Your task to perform on an android device: What is the news today? Image 0: 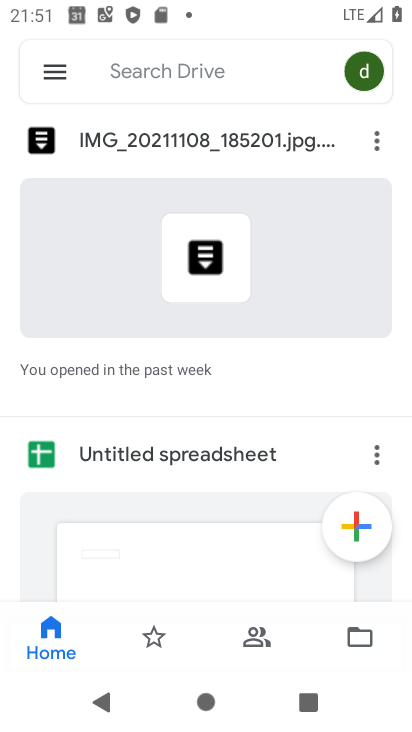
Step 0: press home button
Your task to perform on an android device: What is the news today? Image 1: 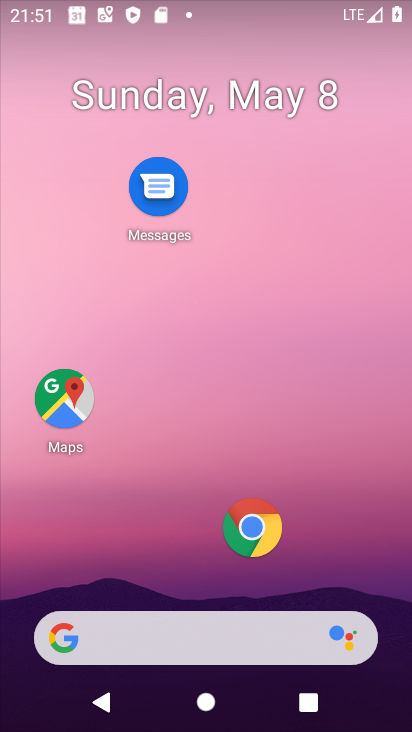
Step 1: drag from (183, 549) to (214, 55)
Your task to perform on an android device: What is the news today? Image 2: 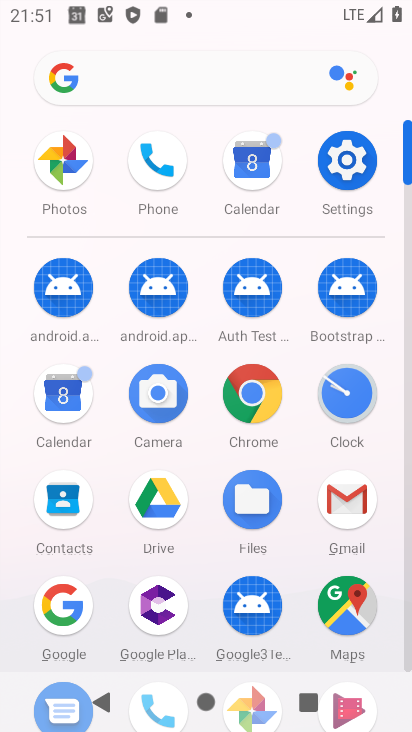
Step 2: drag from (211, 546) to (227, 161)
Your task to perform on an android device: What is the news today? Image 3: 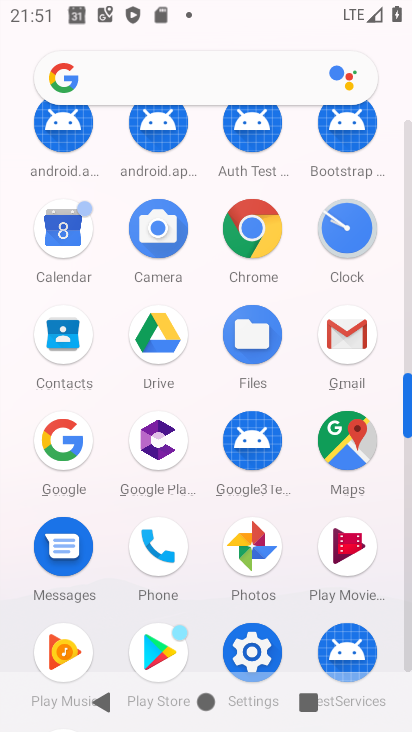
Step 3: click (62, 445)
Your task to perform on an android device: What is the news today? Image 4: 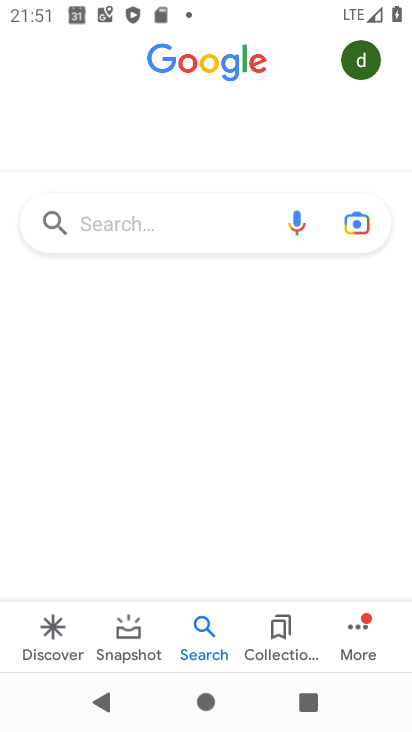
Step 4: click (169, 228)
Your task to perform on an android device: What is the news today? Image 5: 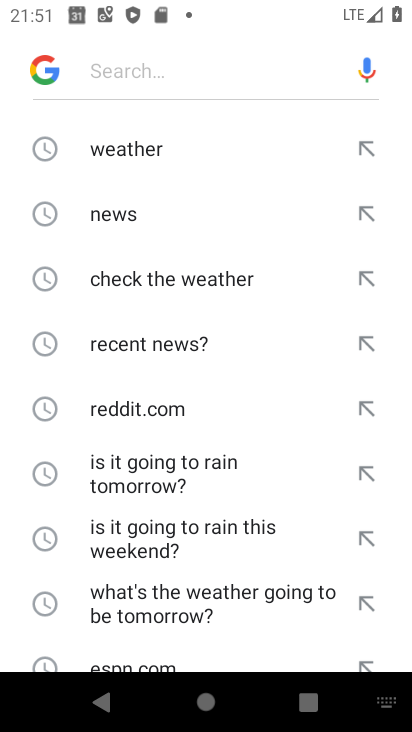
Step 5: type "news today"
Your task to perform on an android device: What is the news today? Image 6: 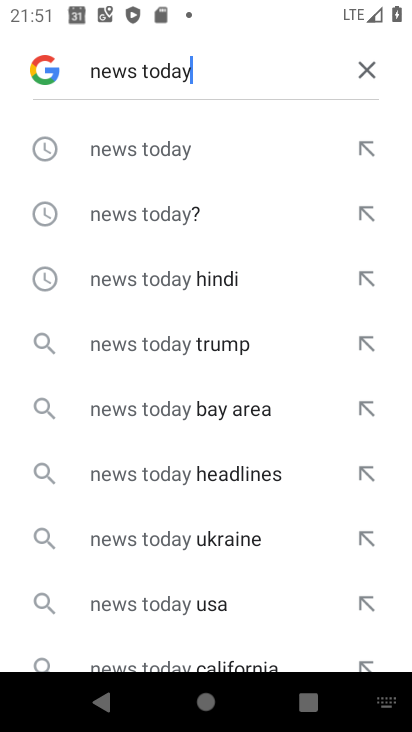
Step 6: click (142, 154)
Your task to perform on an android device: What is the news today? Image 7: 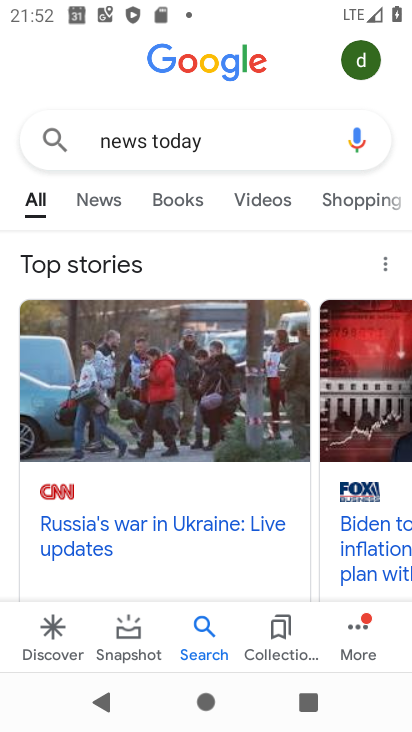
Step 7: task complete